Your task to perform on an android device: see tabs open on other devices in the chrome app Image 0: 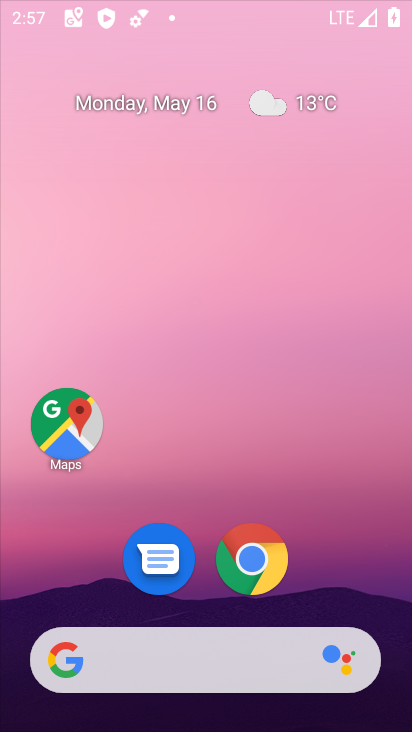
Step 0: click (293, 17)
Your task to perform on an android device: see tabs open on other devices in the chrome app Image 1: 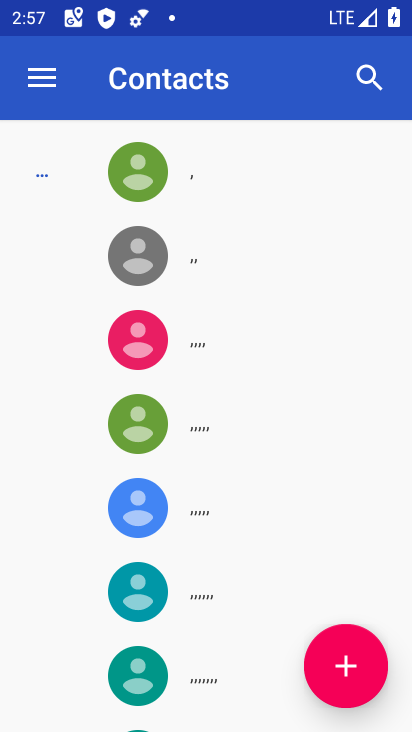
Step 1: press back button
Your task to perform on an android device: see tabs open on other devices in the chrome app Image 2: 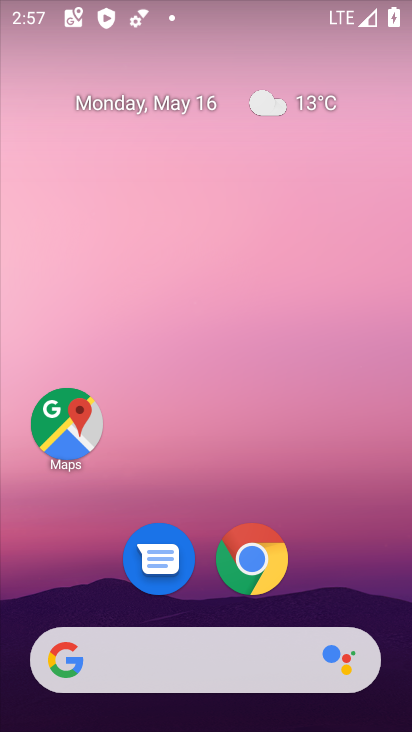
Step 2: drag from (95, 527) to (184, 119)
Your task to perform on an android device: see tabs open on other devices in the chrome app Image 3: 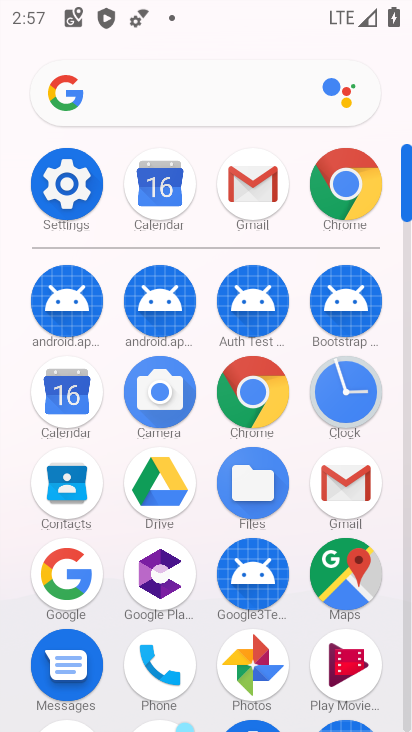
Step 3: click (347, 174)
Your task to perform on an android device: see tabs open on other devices in the chrome app Image 4: 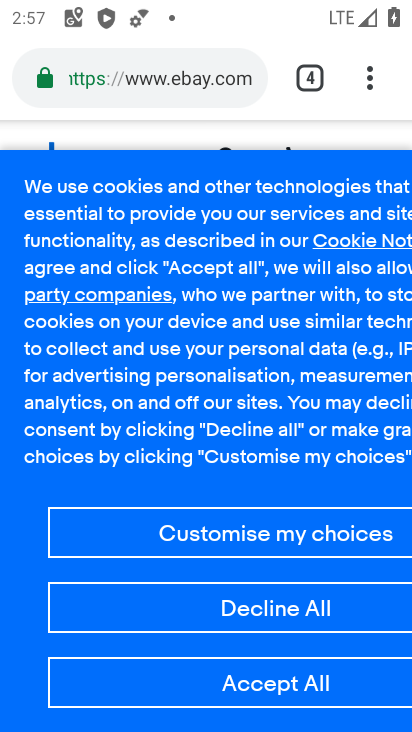
Step 4: task complete